Your task to perform on an android device: refresh tabs in the chrome app Image 0: 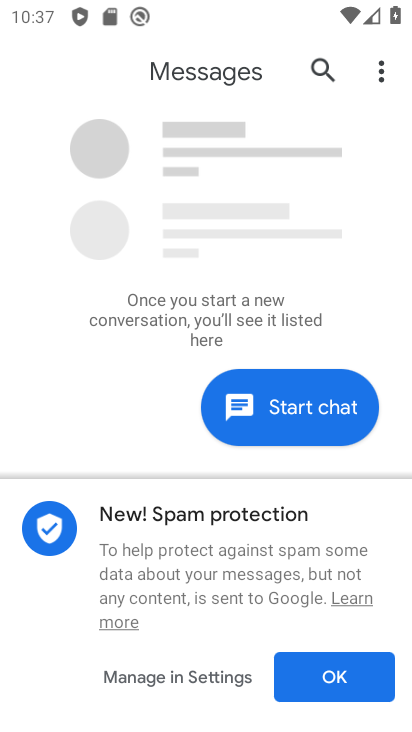
Step 0: press home button
Your task to perform on an android device: refresh tabs in the chrome app Image 1: 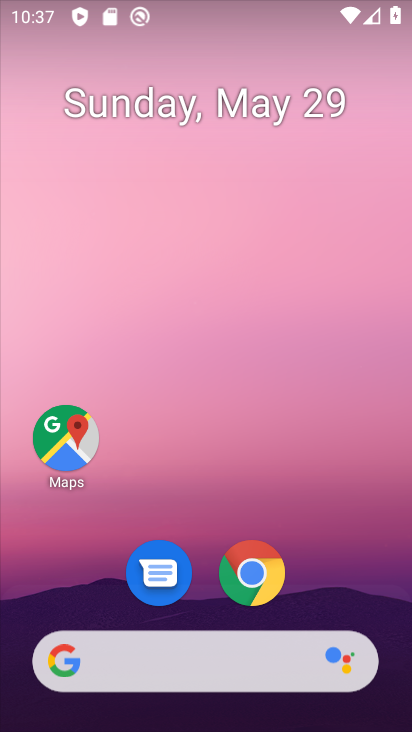
Step 1: click (259, 568)
Your task to perform on an android device: refresh tabs in the chrome app Image 2: 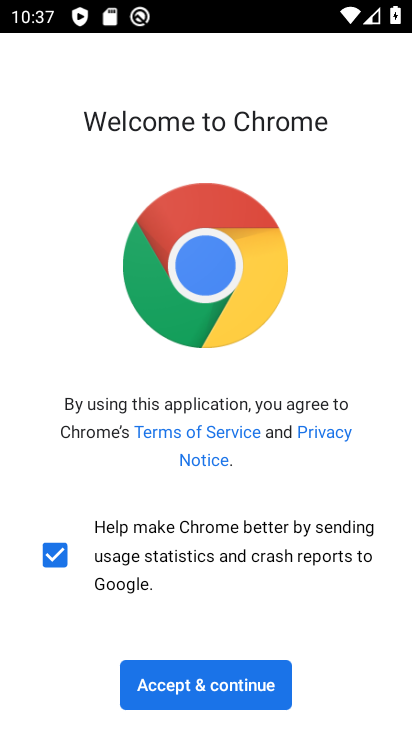
Step 2: click (240, 681)
Your task to perform on an android device: refresh tabs in the chrome app Image 3: 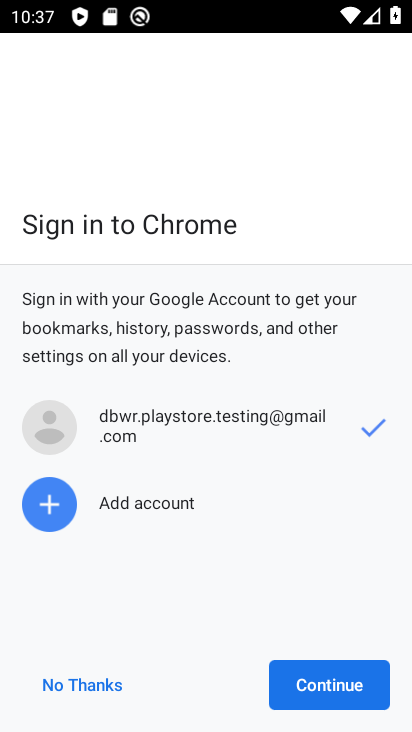
Step 3: click (354, 677)
Your task to perform on an android device: refresh tabs in the chrome app Image 4: 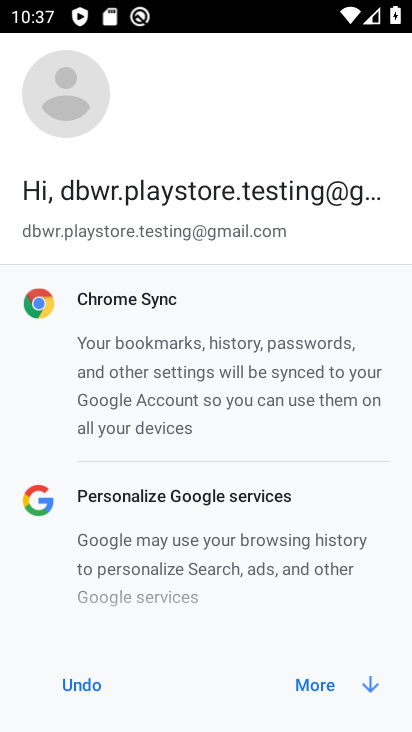
Step 4: click (348, 687)
Your task to perform on an android device: refresh tabs in the chrome app Image 5: 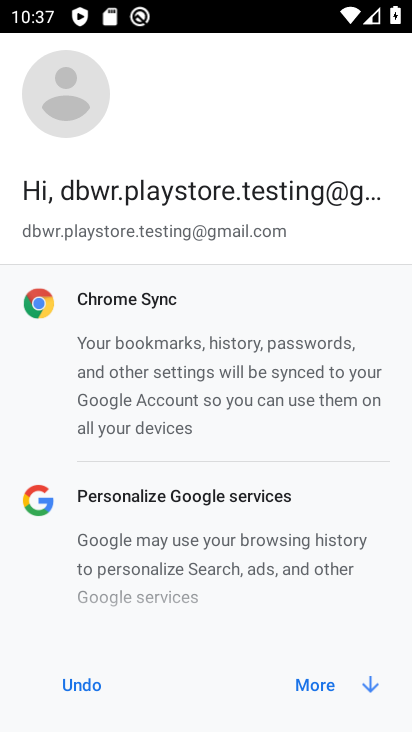
Step 5: click (349, 688)
Your task to perform on an android device: refresh tabs in the chrome app Image 6: 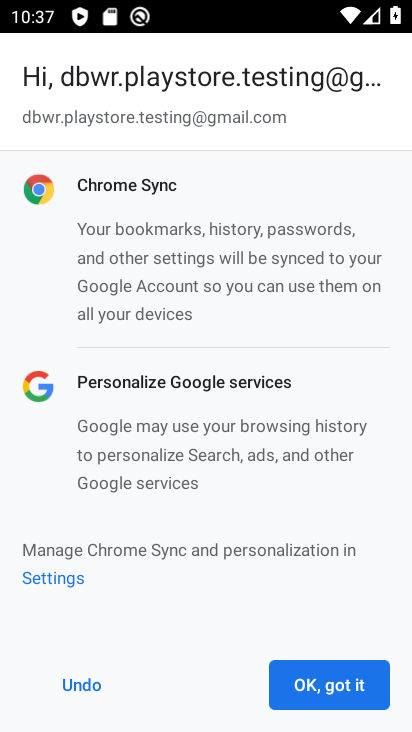
Step 6: click (349, 688)
Your task to perform on an android device: refresh tabs in the chrome app Image 7: 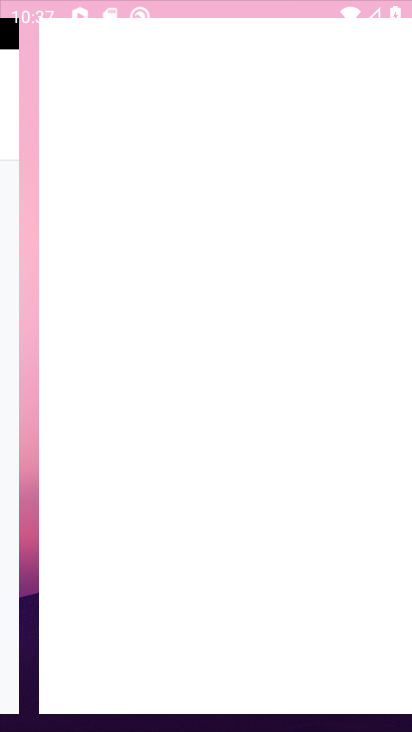
Step 7: click (349, 688)
Your task to perform on an android device: refresh tabs in the chrome app Image 8: 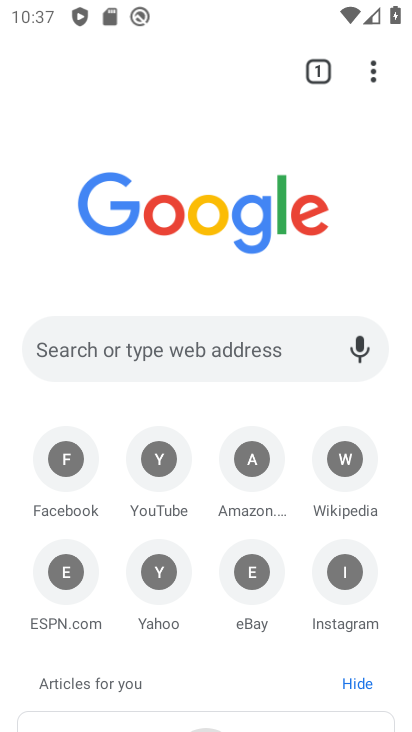
Step 8: click (371, 75)
Your task to perform on an android device: refresh tabs in the chrome app Image 9: 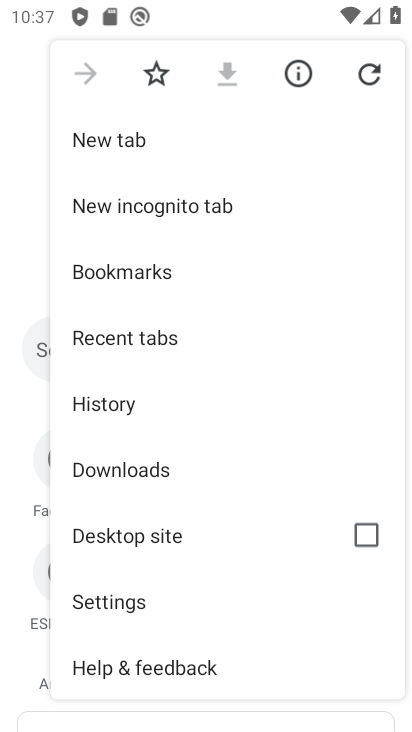
Step 9: click (373, 67)
Your task to perform on an android device: refresh tabs in the chrome app Image 10: 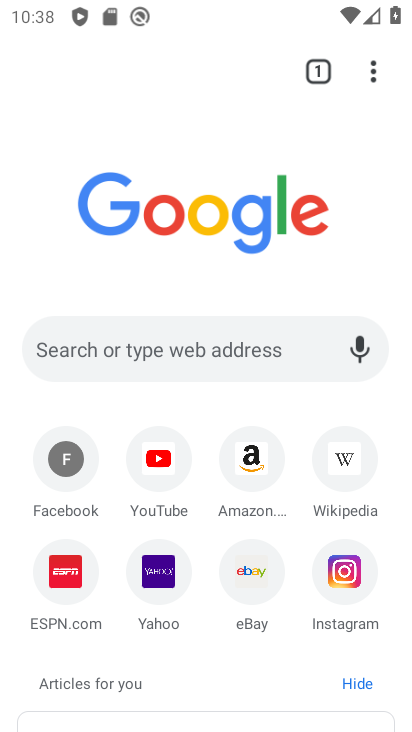
Step 10: task complete